Your task to perform on an android device: Go to CNN.com Image 0: 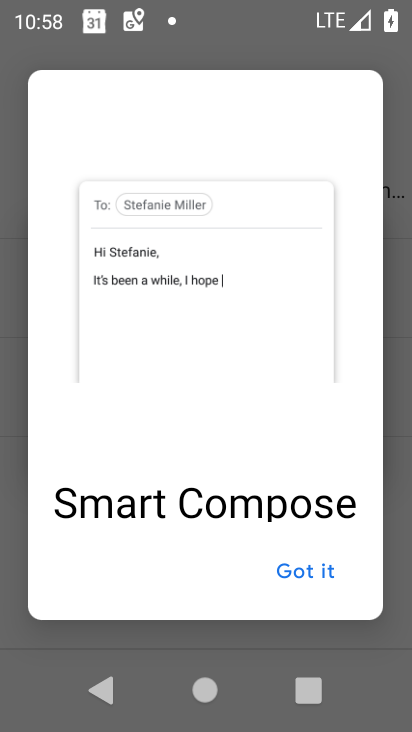
Step 0: press home button
Your task to perform on an android device: Go to CNN.com Image 1: 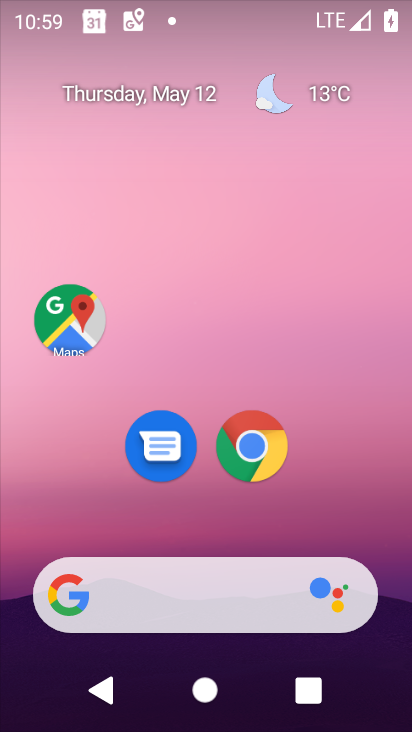
Step 1: drag from (200, 591) to (143, 121)
Your task to perform on an android device: Go to CNN.com Image 2: 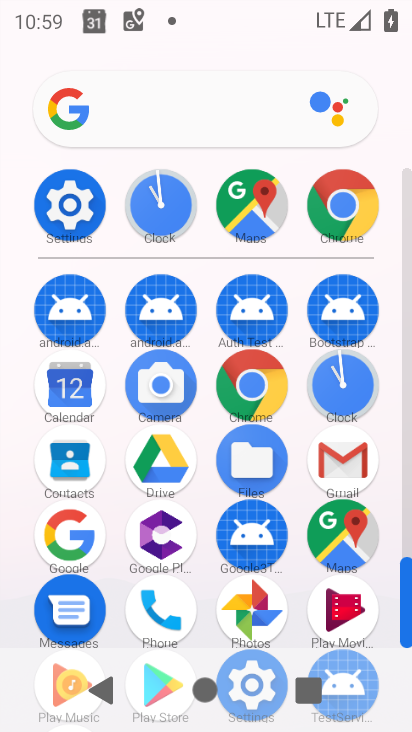
Step 2: click (255, 386)
Your task to perform on an android device: Go to CNN.com Image 3: 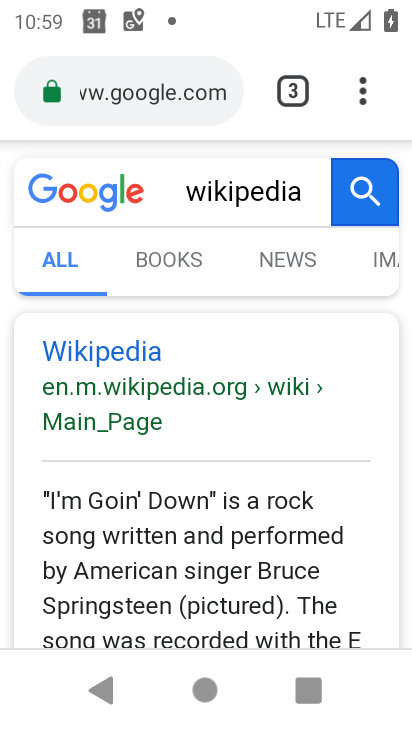
Step 3: click (167, 91)
Your task to perform on an android device: Go to CNN.com Image 4: 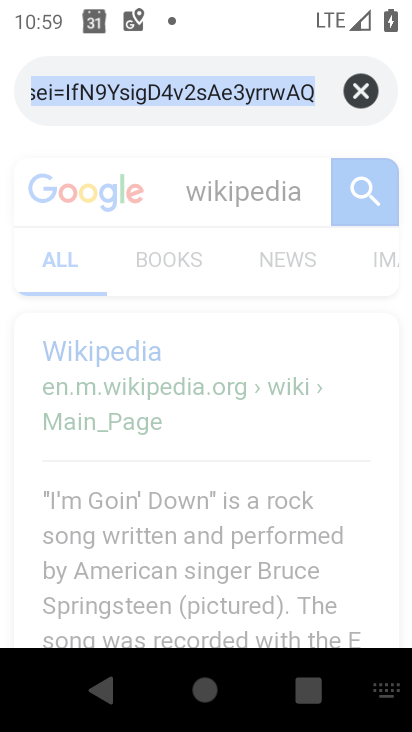
Step 4: click (355, 89)
Your task to perform on an android device: Go to CNN.com Image 5: 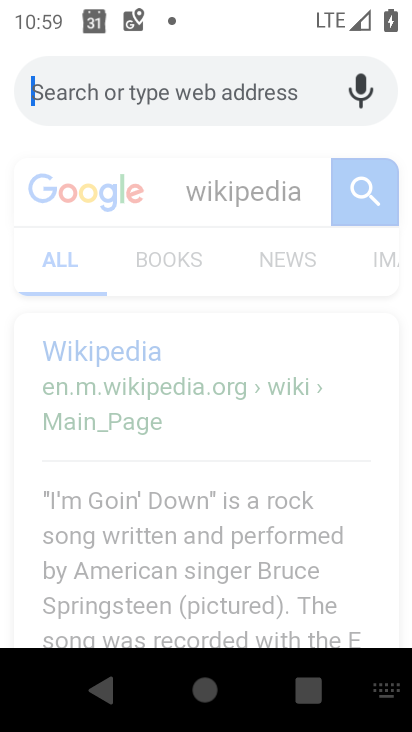
Step 5: type "cnn.com"
Your task to perform on an android device: Go to CNN.com Image 6: 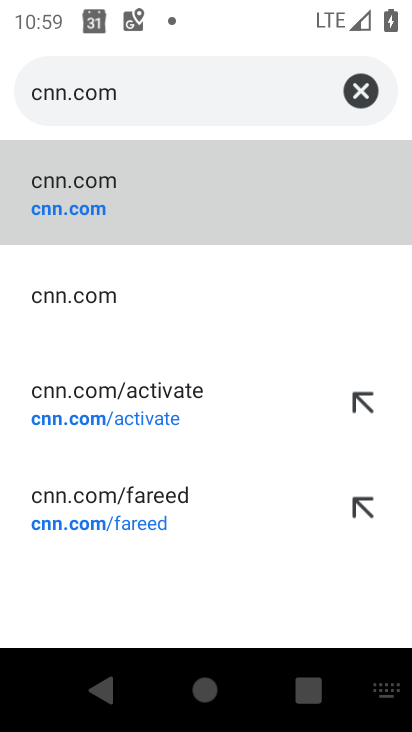
Step 6: click (128, 169)
Your task to perform on an android device: Go to CNN.com Image 7: 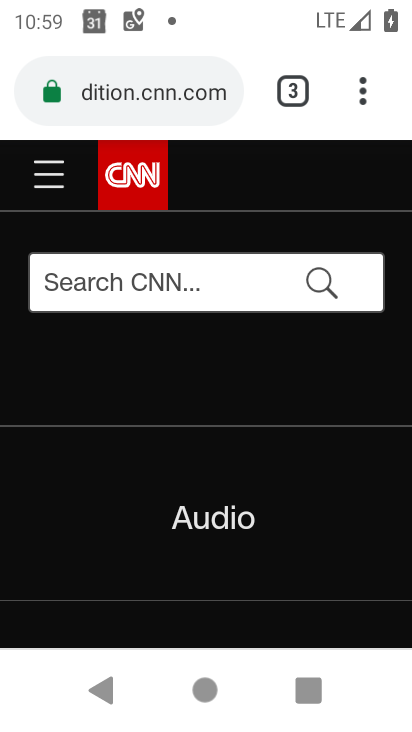
Step 7: task complete